Your task to perform on an android device: Go to network settings Image 0: 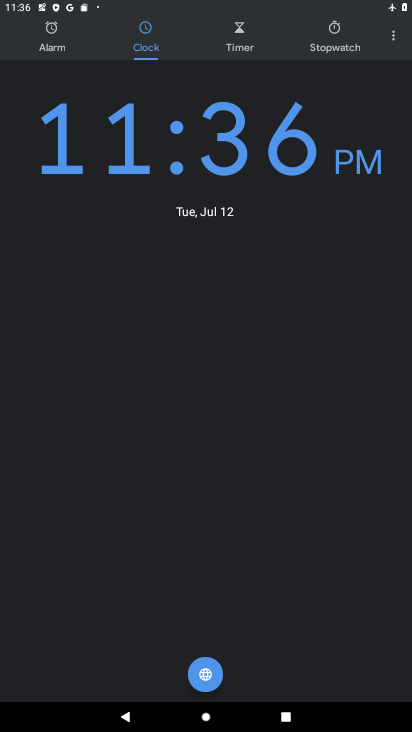
Step 0: press home button
Your task to perform on an android device: Go to network settings Image 1: 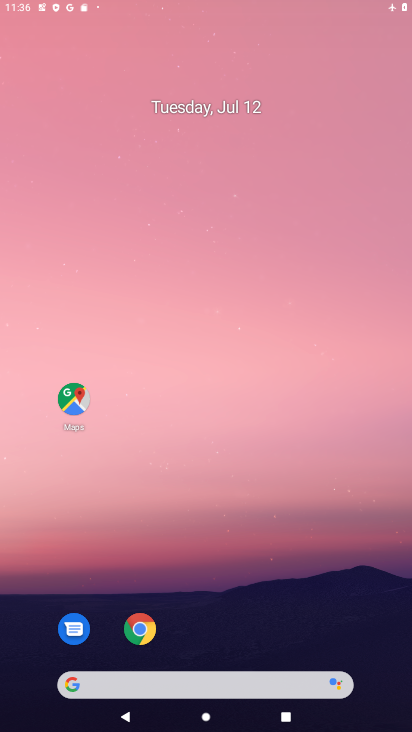
Step 1: drag from (198, 668) to (239, 168)
Your task to perform on an android device: Go to network settings Image 2: 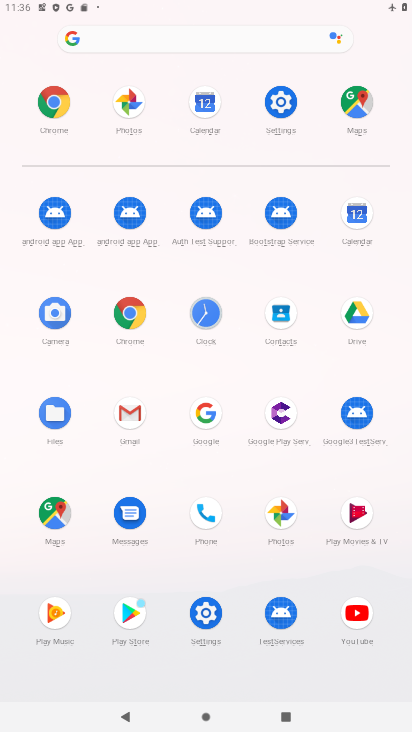
Step 2: click (276, 89)
Your task to perform on an android device: Go to network settings Image 3: 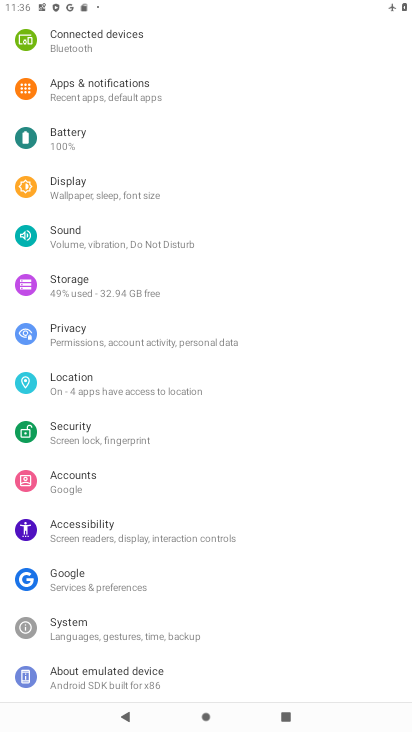
Step 3: drag from (170, 78) to (192, 577)
Your task to perform on an android device: Go to network settings Image 4: 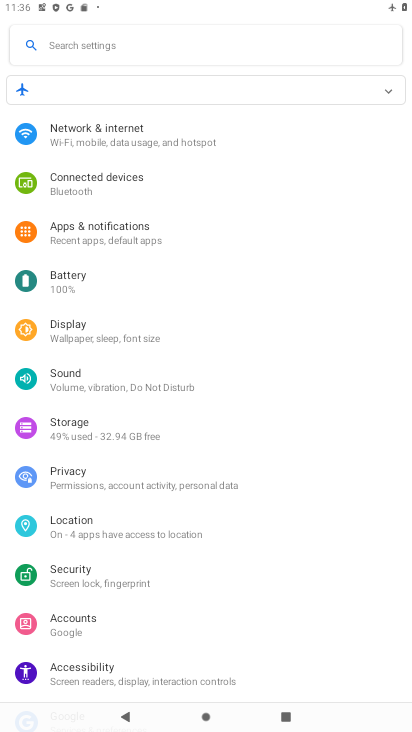
Step 4: click (106, 130)
Your task to perform on an android device: Go to network settings Image 5: 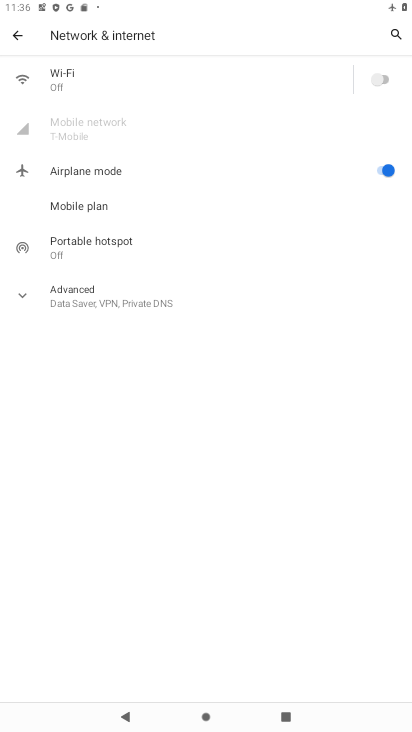
Step 5: task complete